Your task to perform on an android device: Open the Play Movies app and select the watchlist tab. Image 0: 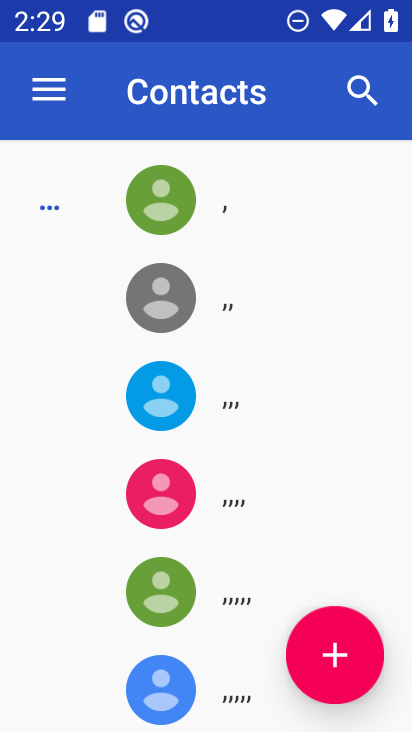
Step 0: press home button
Your task to perform on an android device: Open the Play Movies app and select the watchlist tab. Image 1: 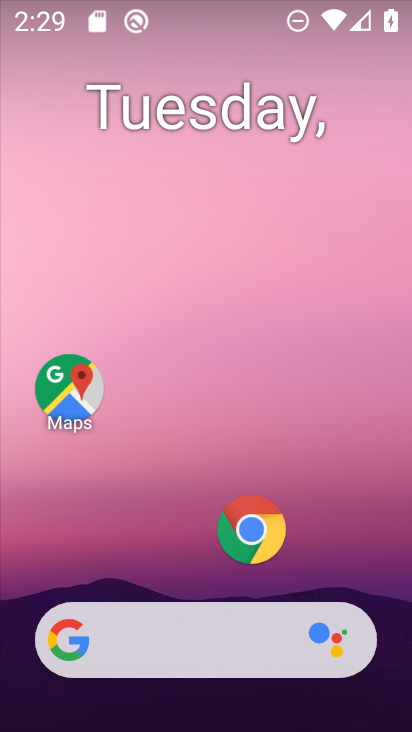
Step 1: drag from (213, 690) to (233, 15)
Your task to perform on an android device: Open the Play Movies app and select the watchlist tab. Image 2: 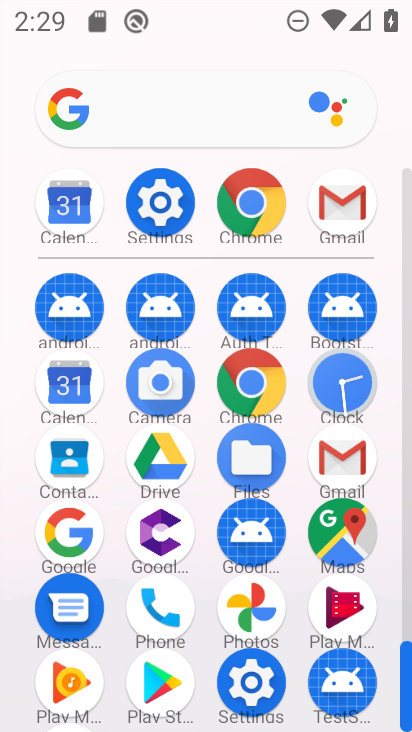
Step 2: click (347, 600)
Your task to perform on an android device: Open the Play Movies app and select the watchlist tab. Image 3: 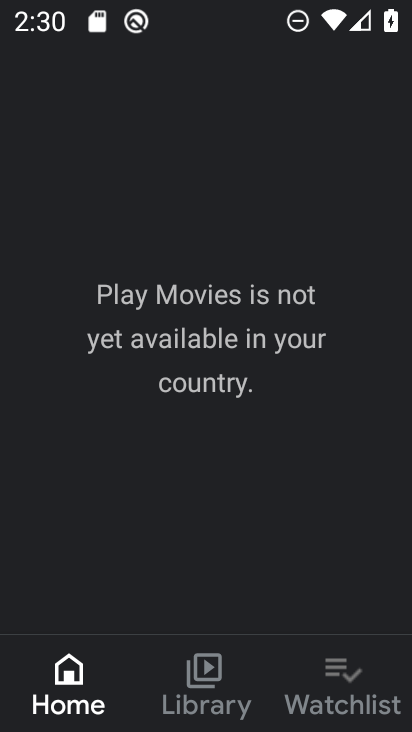
Step 3: click (335, 691)
Your task to perform on an android device: Open the Play Movies app and select the watchlist tab. Image 4: 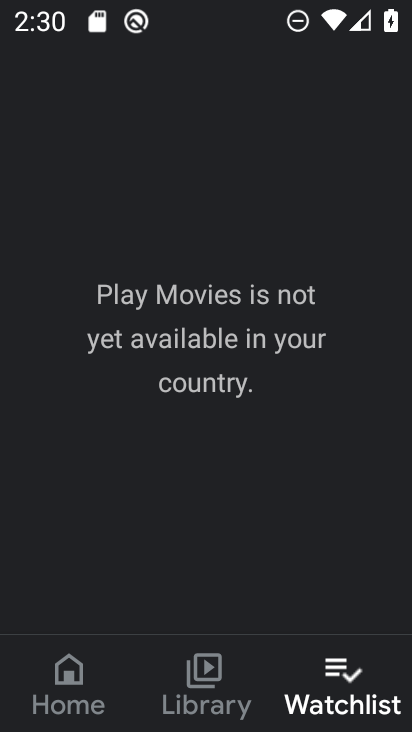
Step 4: task complete